Your task to perform on an android device: Open accessibility settings Image 0: 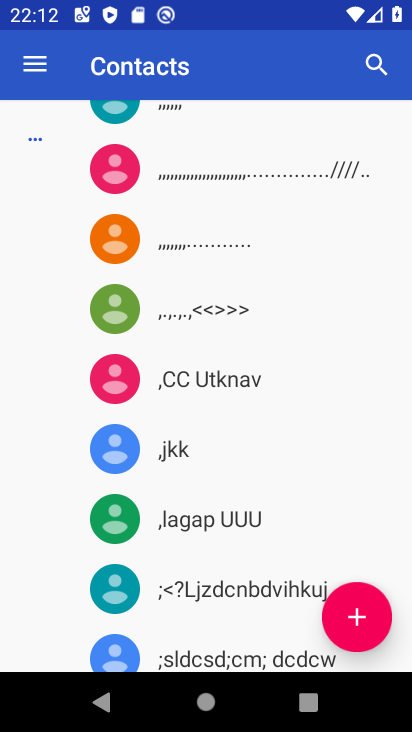
Step 0: press home button
Your task to perform on an android device: Open accessibility settings Image 1: 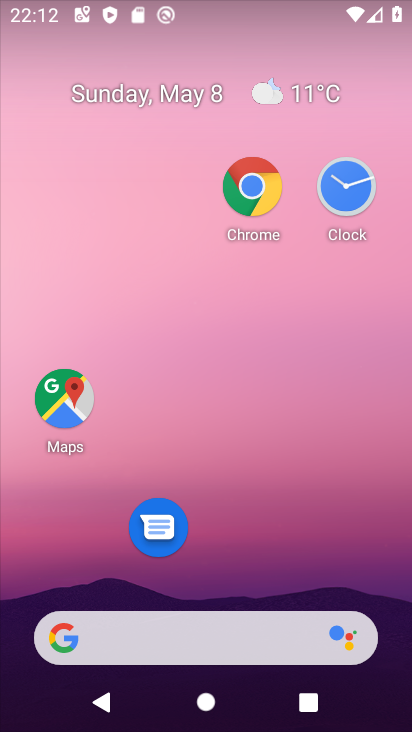
Step 1: drag from (277, 553) to (315, 124)
Your task to perform on an android device: Open accessibility settings Image 2: 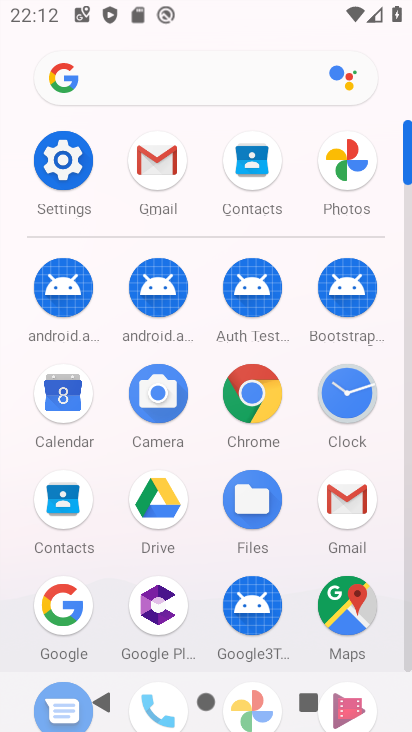
Step 2: click (54, 173)
Your task to perform on an android device: Open accessibility settings Image 3: 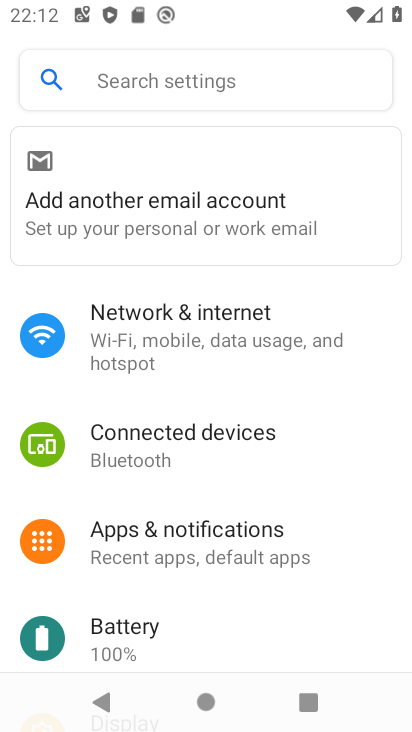
Step 3: drag from (238, 460) to (237, 203)
Your task to perform on an android device: Open accessibility settings Image 4: 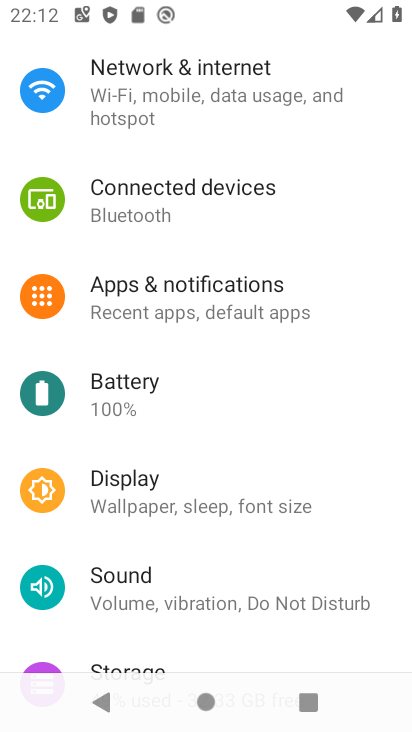
Step 4: drag from (213, 508) to (261, 200)
Your task to perform on an android device: Open accessibility settings Image 5: 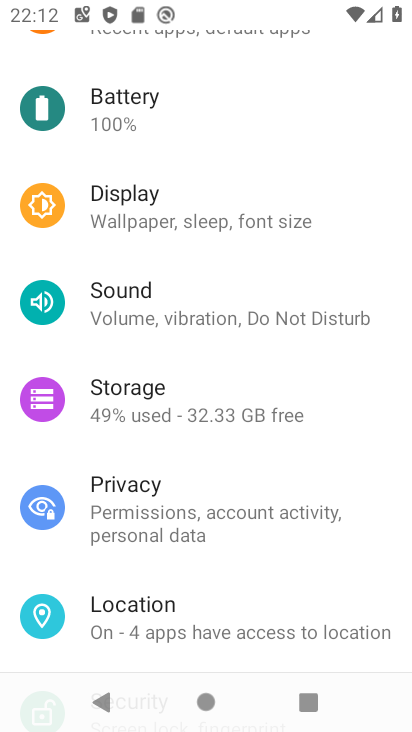
Step 5: drag from (230, 487) to (269, 108)
Your task to perform on an android device: Open accessibility settings Image 6: 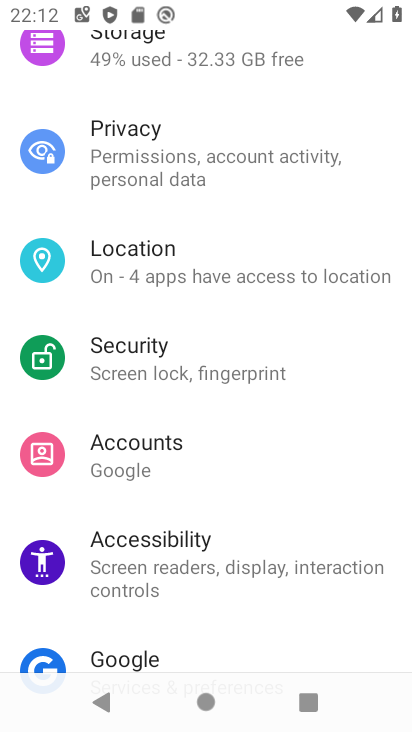
Step 6: click (207, 546)
Your task to perform on an android device: Open accessibility settings Image 7: 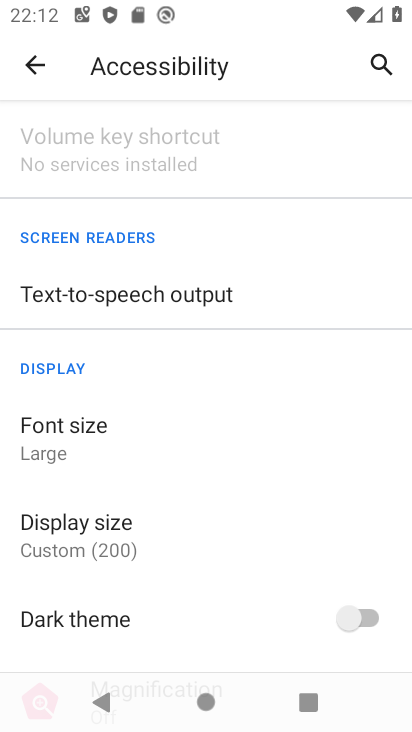
Step 7: task complete